Your task to perform on an android device: Empty the shopping cart on ebay. Search for logitech g pro on ebay, select the first entry, and add it to the cart. Image 0: 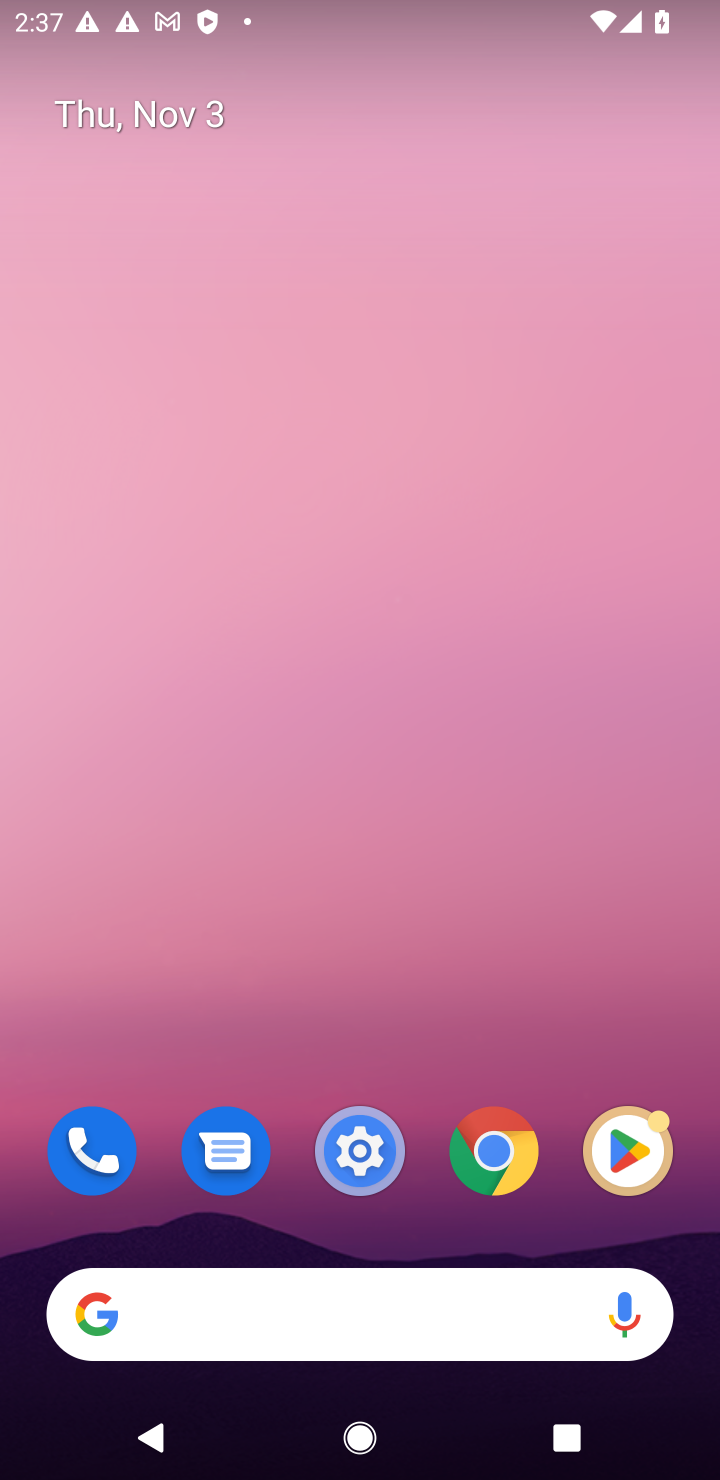
Step 0: click (324, 1316)
Your task to perform on an android device: Empty the shopping cart on ebay. Search for logitech g pro on ebay, select the first entry, and add it to the cart. Image 1: 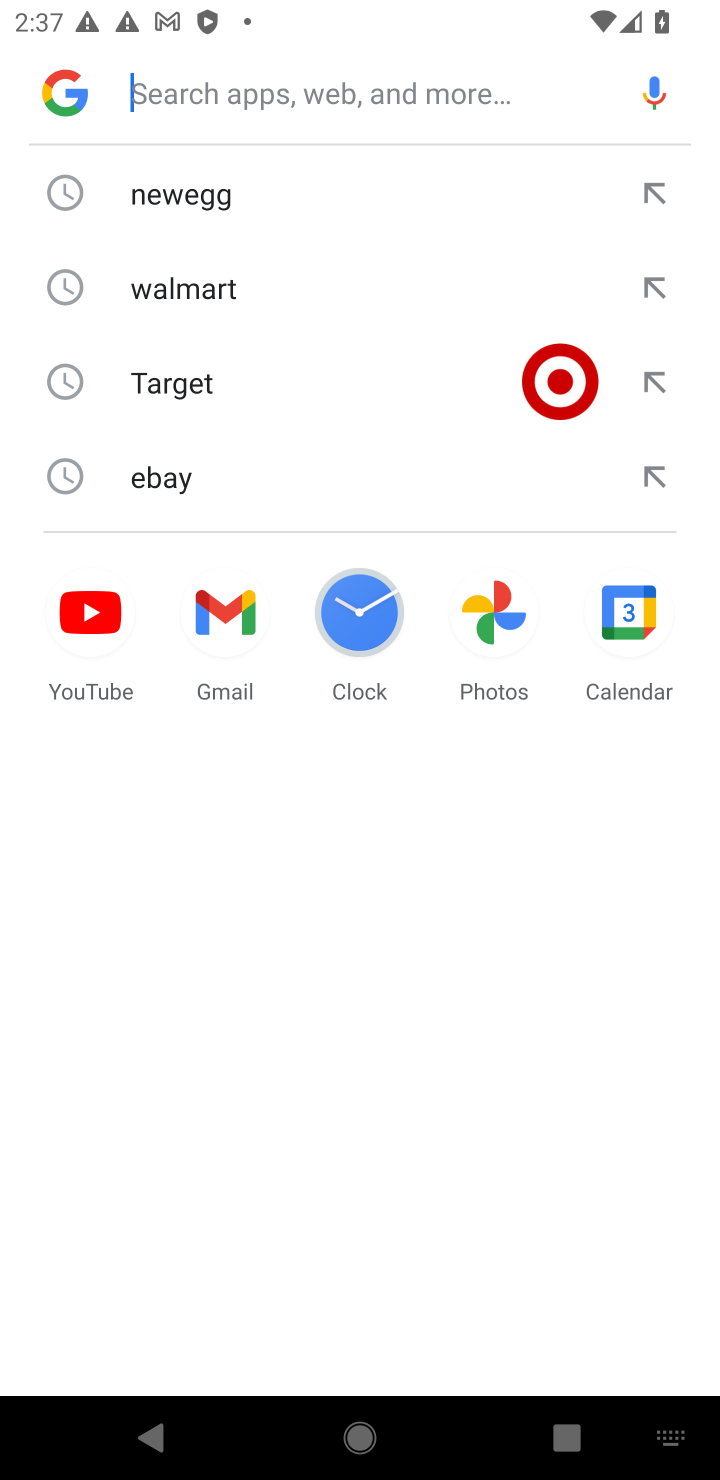
Step 1: type "ebay"
Your task to perform on an android device: Empty the shopping cart on ebay. Search for logitech g pro on ebay, select the first entry, and add it to the cart. Image 2: 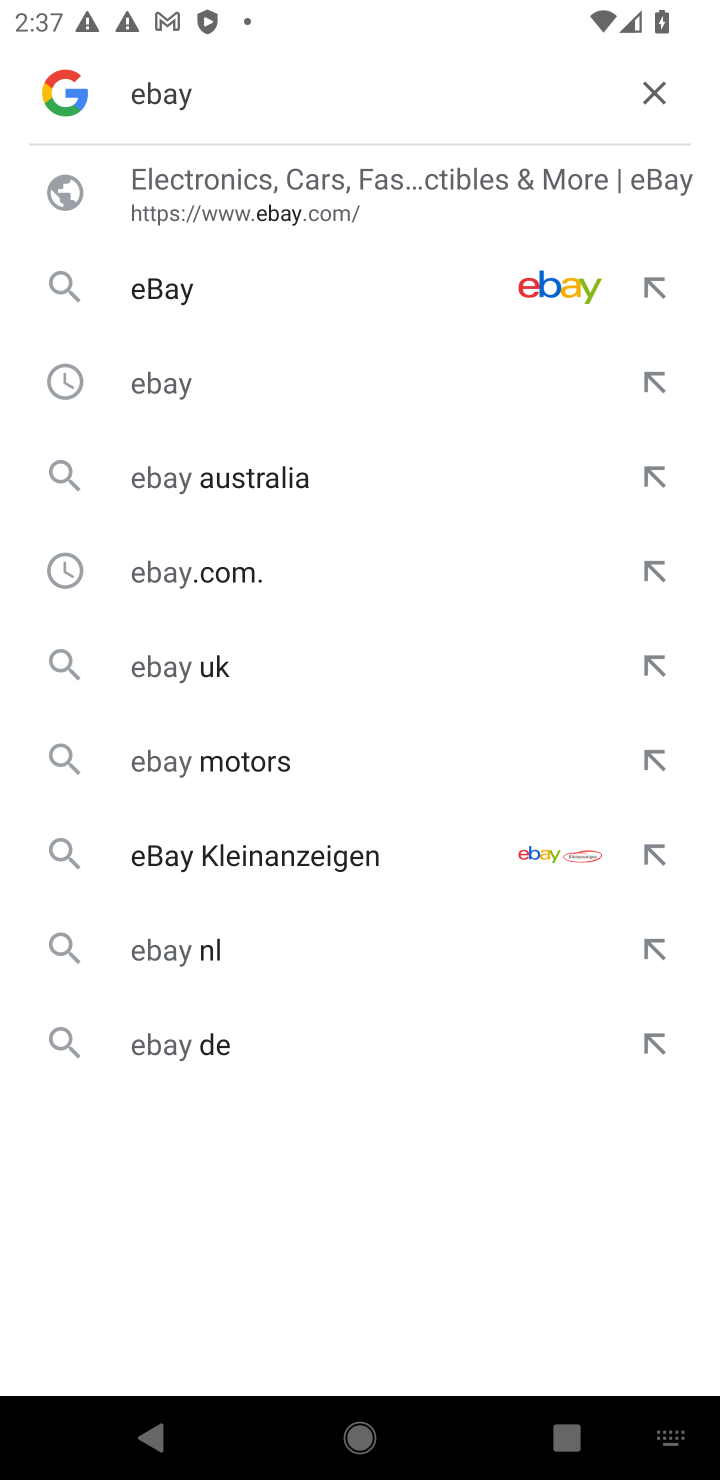
Step 2: click (184, 316)
Your task to perform on an android device: Empty the shopping cart on ebay. Search for logitech g pro on ebay, select the first entry, and add it to the cart. Image 3: 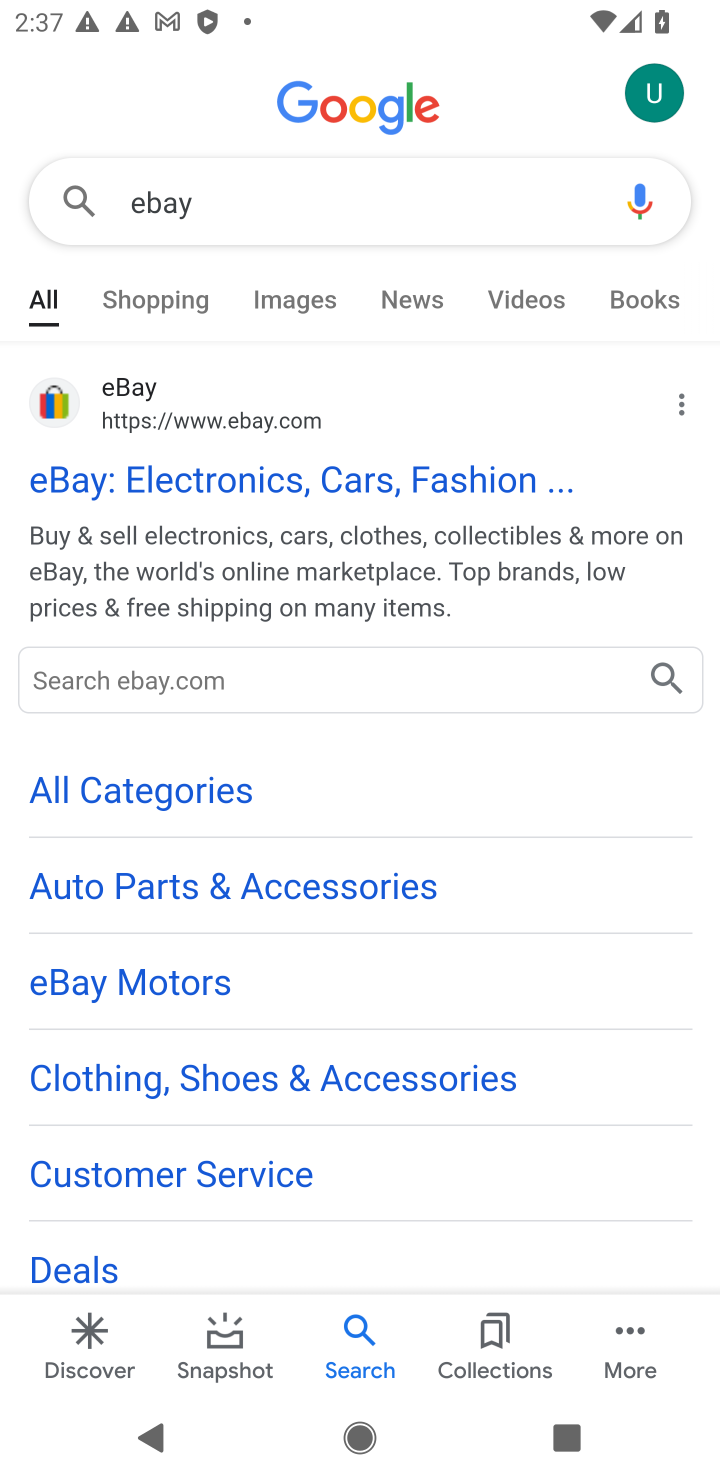
Step 3: click (112, 403)
Your task to perform on an android device: Empty the shopping cart on ebay. Search for logitech g pro on ebay, select the first entry, and add it to the cart. Image 4: 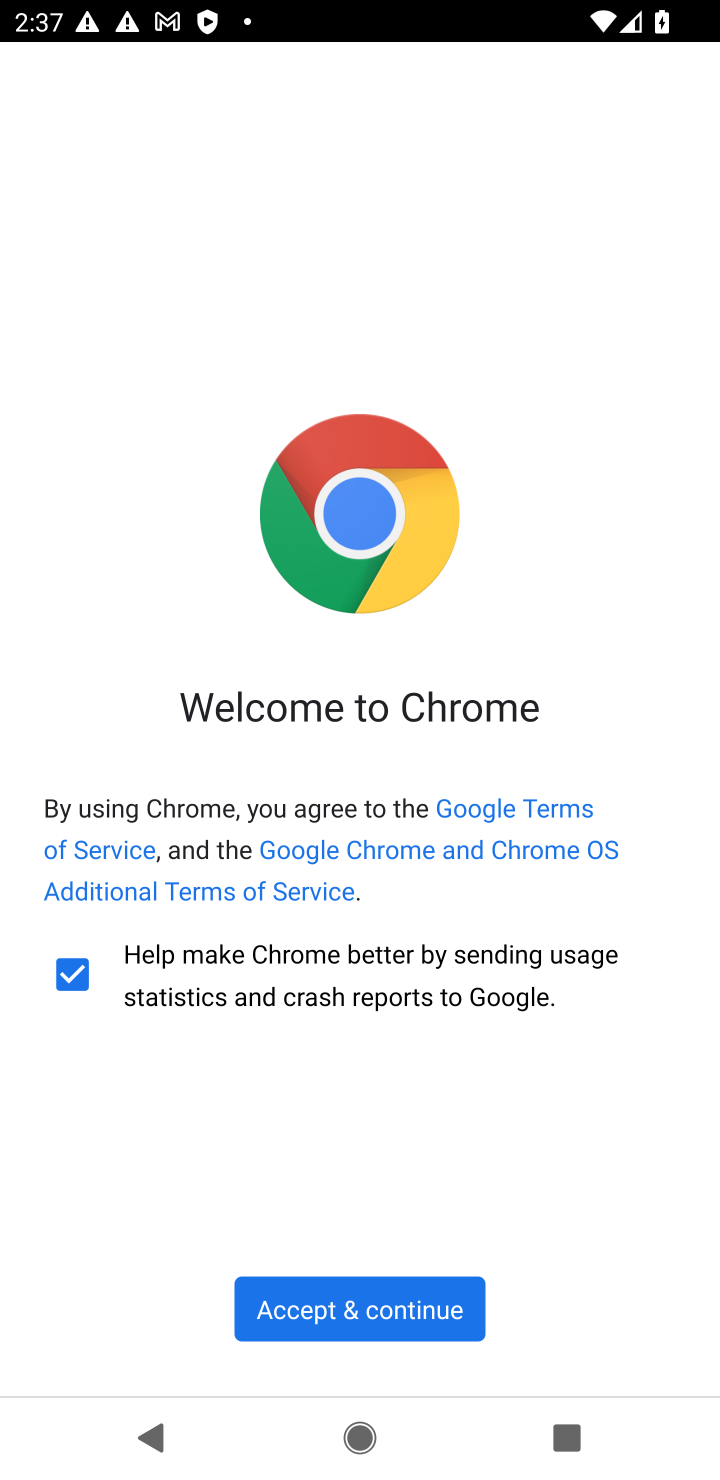
Step 4: click (365, 1295)
Your task to perform on an android device: Empty the shopping cart on ebay. Search for logitech g pro on ebay, select the first entry, and add it to the cart. Image 5: 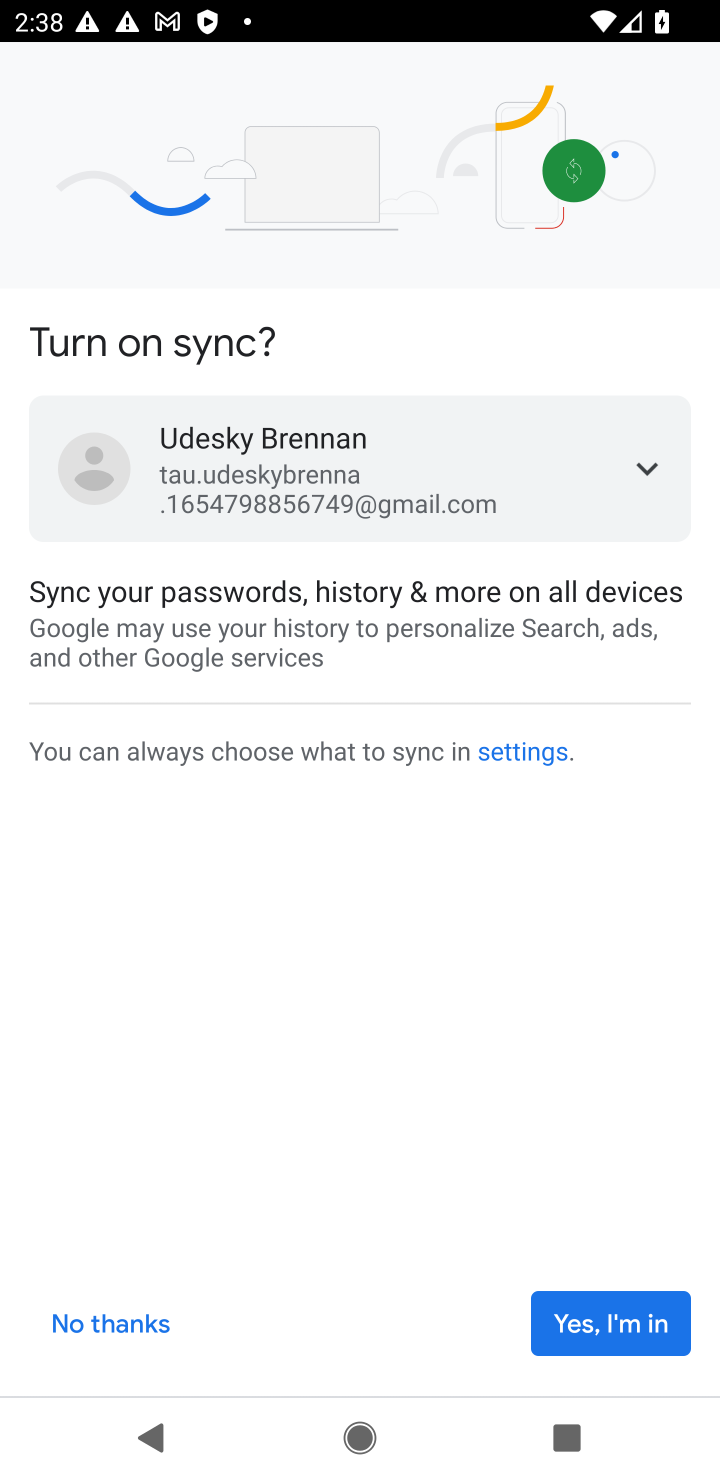
Step 5: click (595, 1330)
Your task to perform on an android device: Empty the shopping cart on ebay. Search for logitech g pro on ebay, select the first entry, and add it to the cart. Image 6: 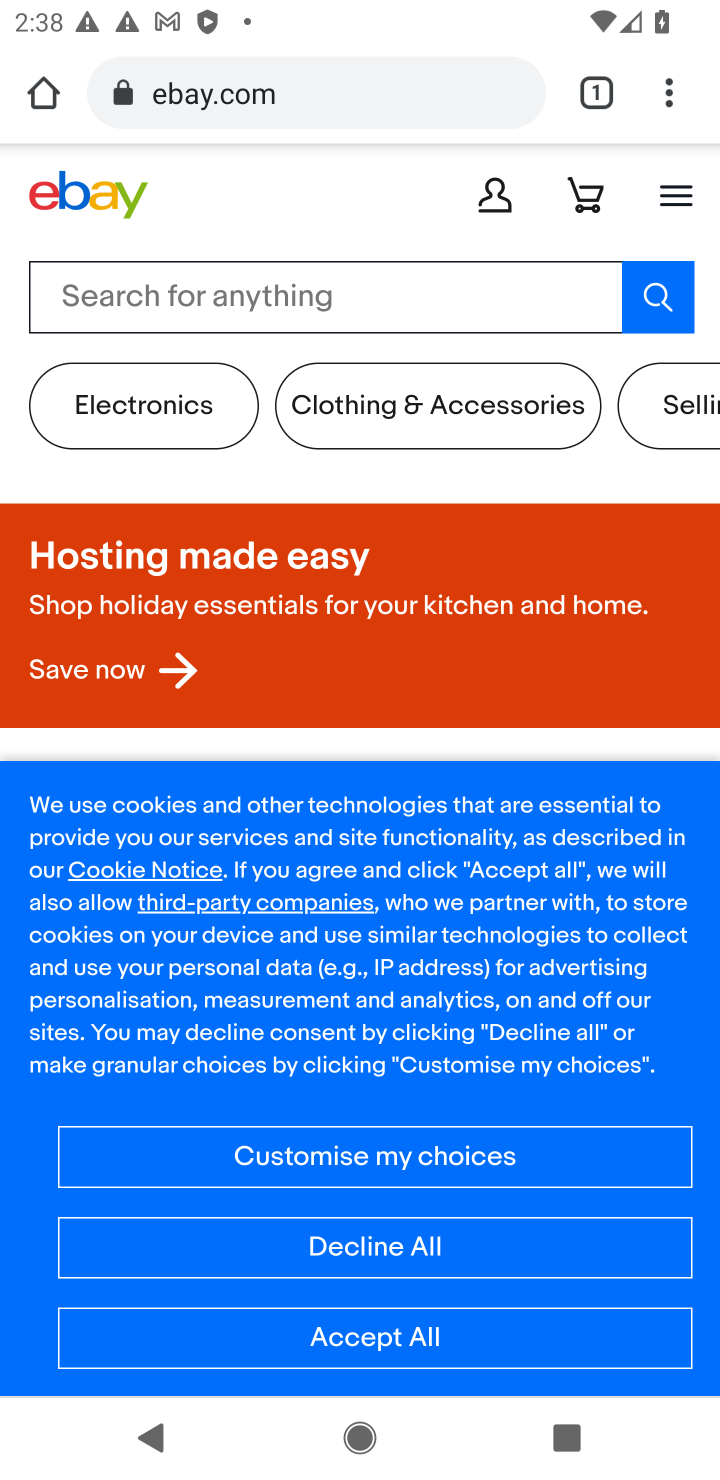
Step 6: click (361, 1345)
Your task to perform on an android device: Empty the shopping cart on ebay. Search for logitech g pro on ebay, select the first entry, and add it to the cart. Image 7: 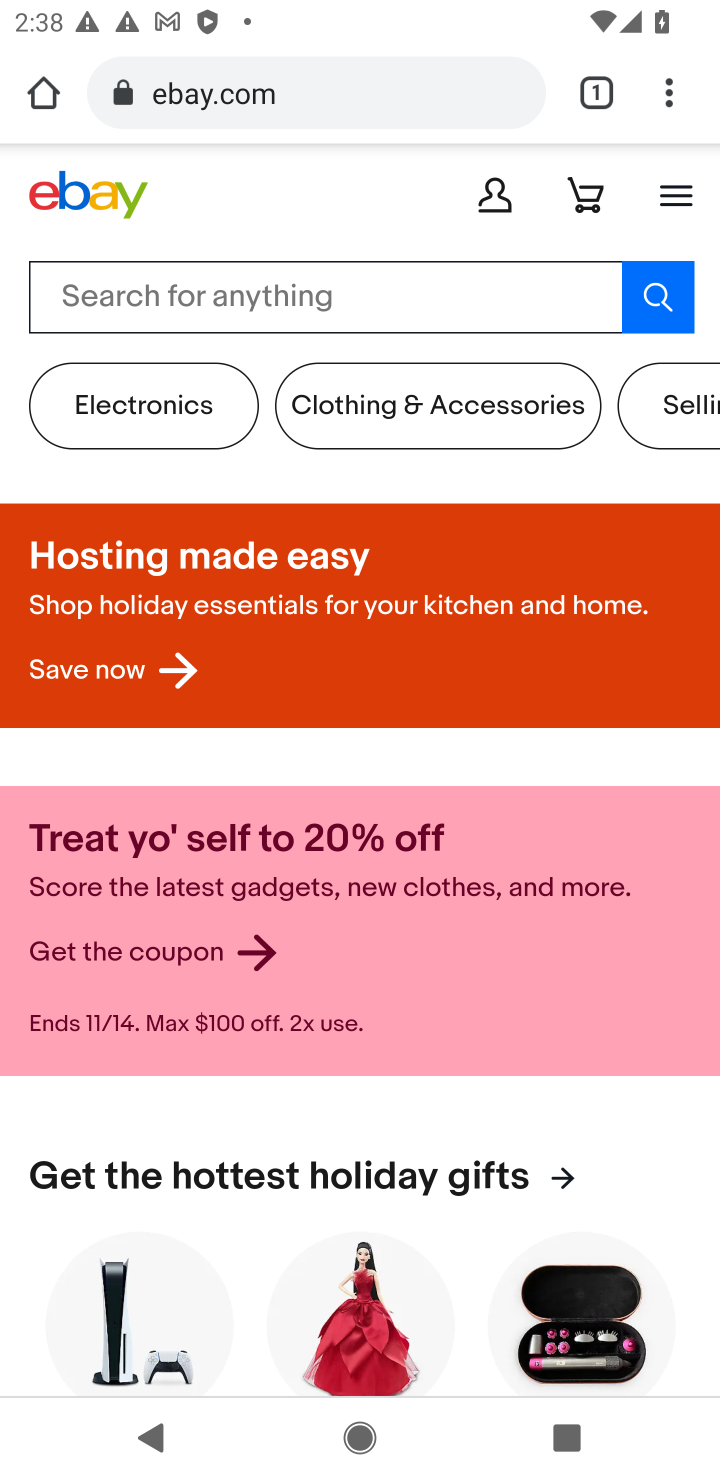
Step 7: click (578, 204)
Your task to perform on an android device: Empty the shopping cart on ebay. Search for logitech g pro on ebay, select the first entry, and add it to the cart. Image 8: 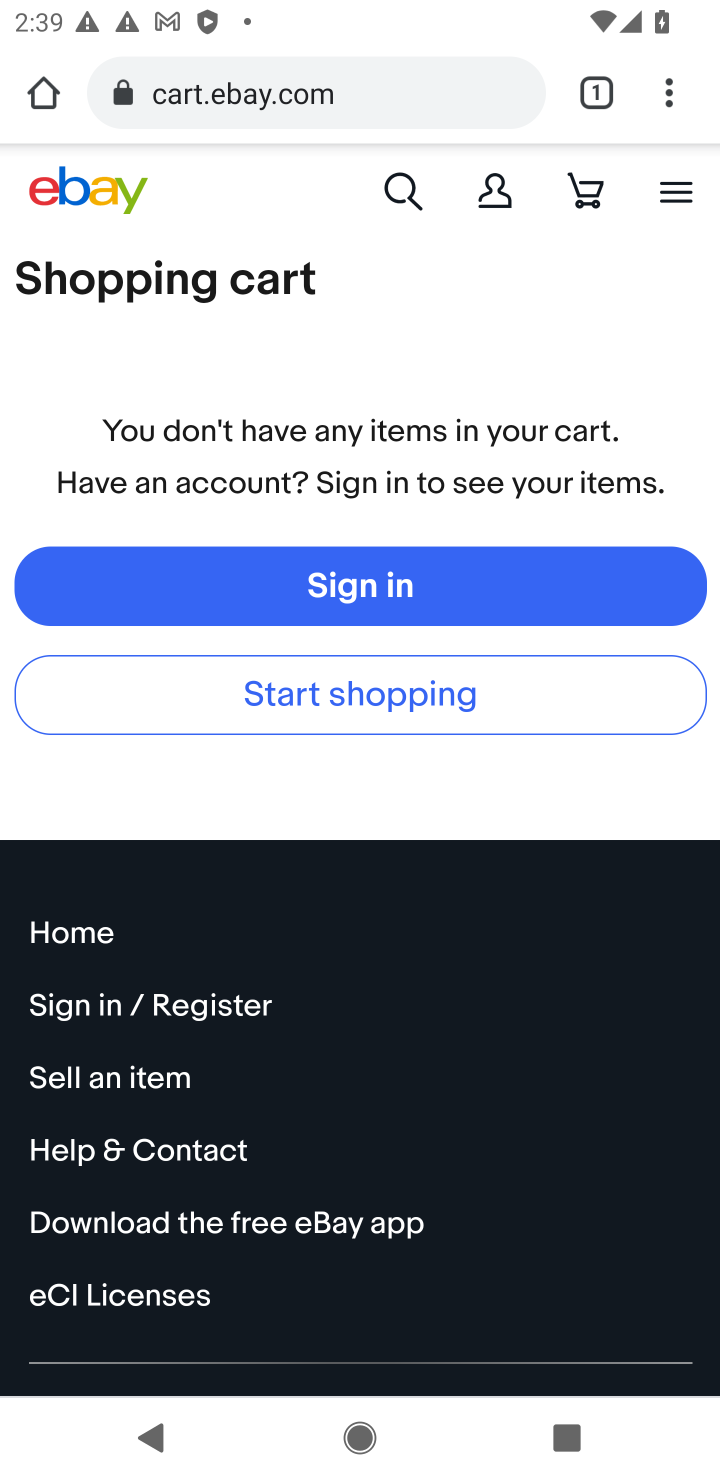
Step 8: click (394, 184)
Your task to perform on an android device: Empty the shopping cart on ebay. Search for logitech g pro on ebay, select the first entry, and add it to the cart. Image 9: 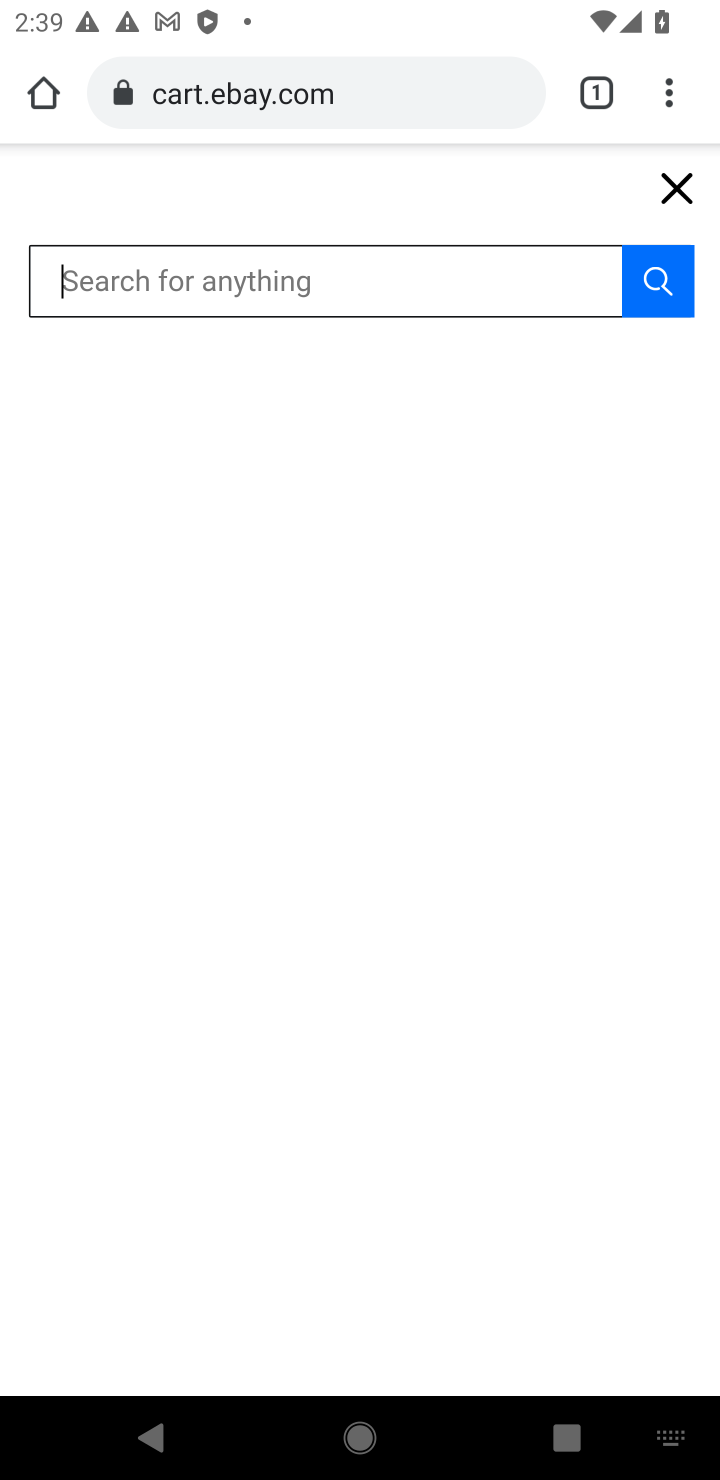
Step 9: type " logitech g pro "
Your task to perform on an android device: Empty the shopping cart on ebay. Search for logitech g pro on ebay, select the first entry, and add it to the cart. Image 10: 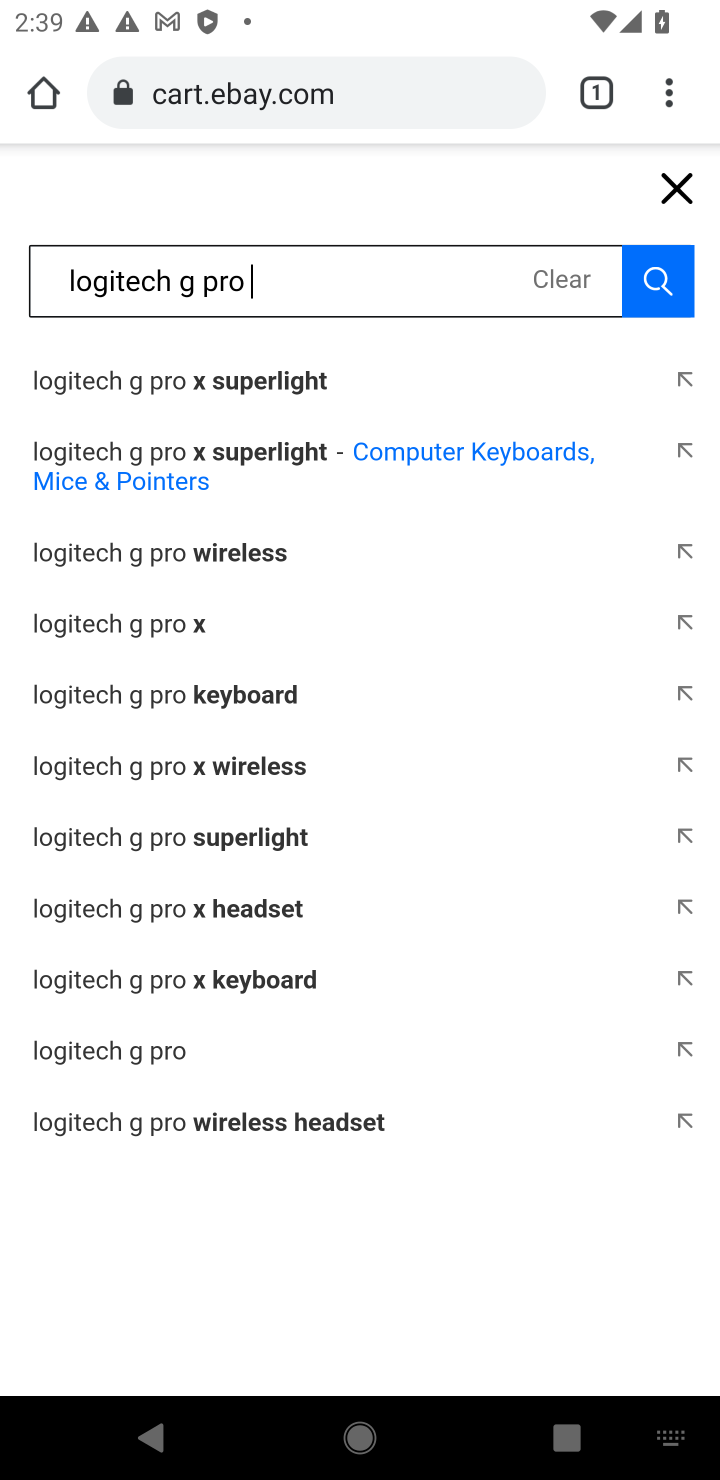
Step 10: click (255, 379)
Your task to perform on an android device: Empty the shopping cart on ebay. Search for logitech g pro on ebay, select the first entry, and add it to the cart. Image 11: 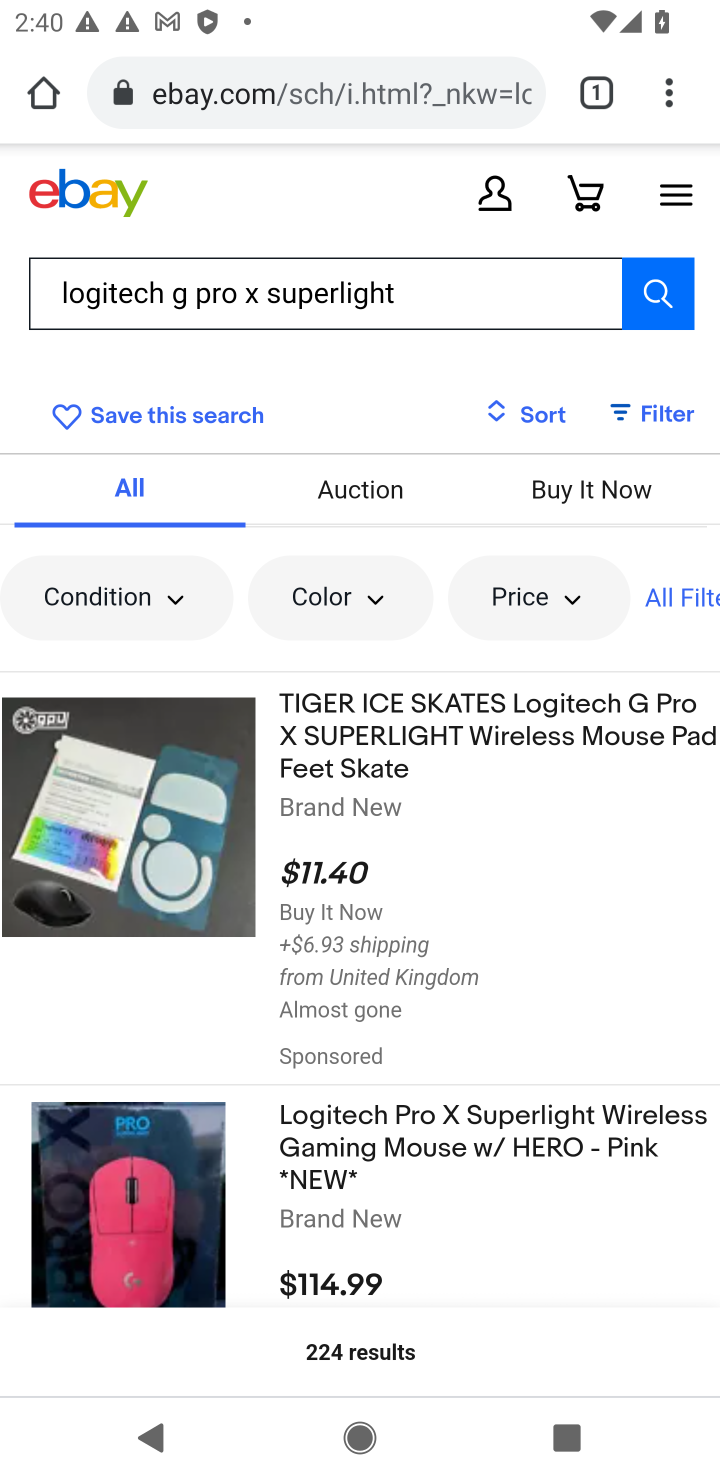
Step 11: click (178, 786)
Your task to perform on an android device: Empty the shopping cart on ebay. Search for logitech g pro on ebay, select the first entry, and add it to the cart. Image 12: 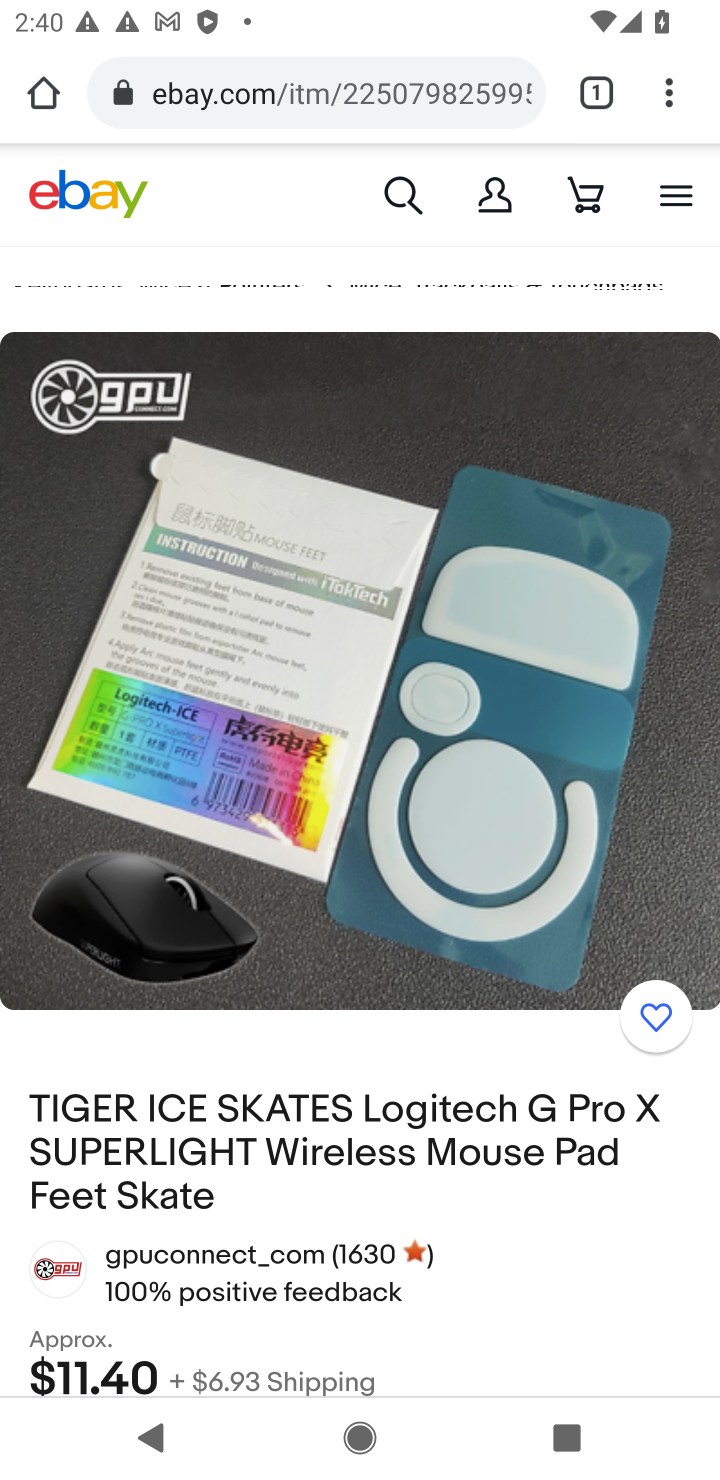
Step 12: drag from (298, 1191) to (398, 530)
Your task to perform on an android device: Empty the shopping cart on ebay. Search for logitech g pro on ebay, select the first entry, and add it to the cart. Image 13: 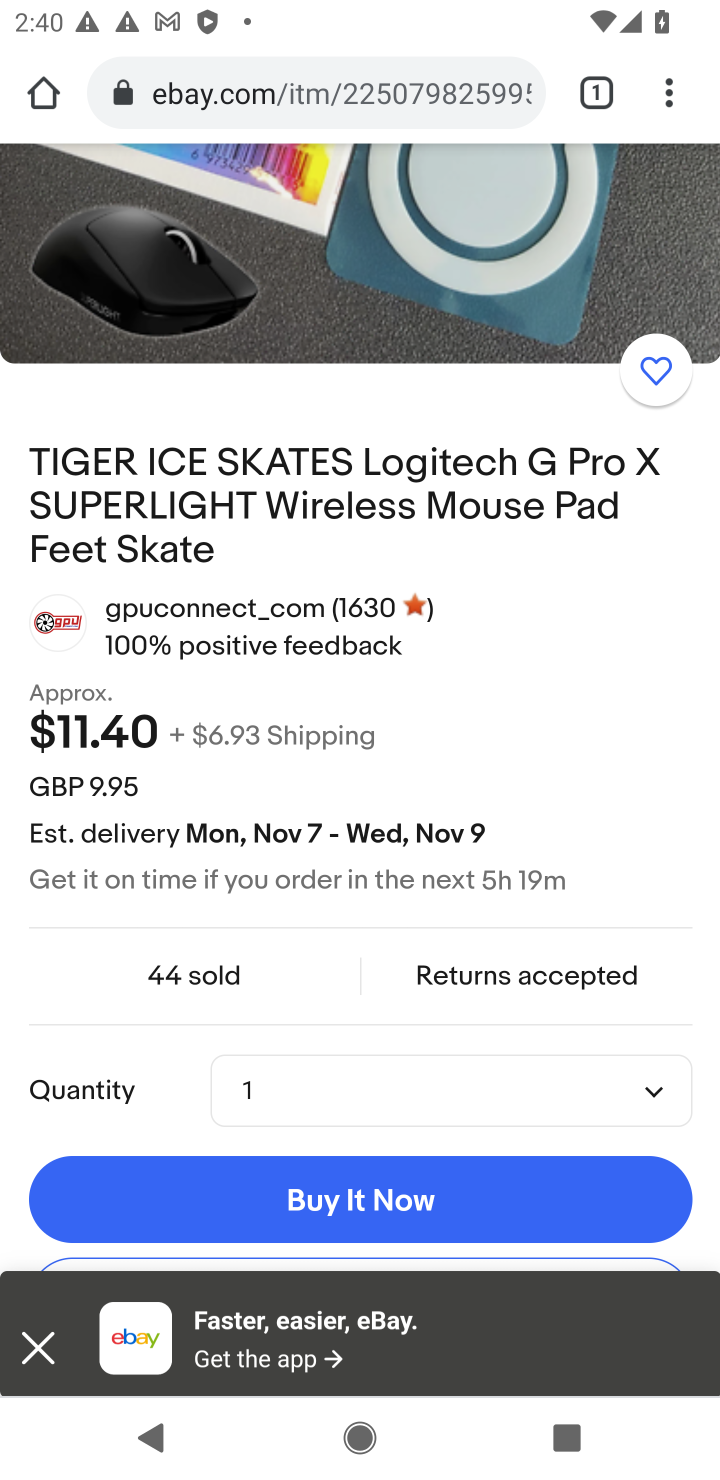
Step 13: click (373, 1188)
Your task to perform on an android device: Empty the shopping cart on ebay. Search for logitech g pro on ebay, select the first entry, and add it to the cart. Image 14: 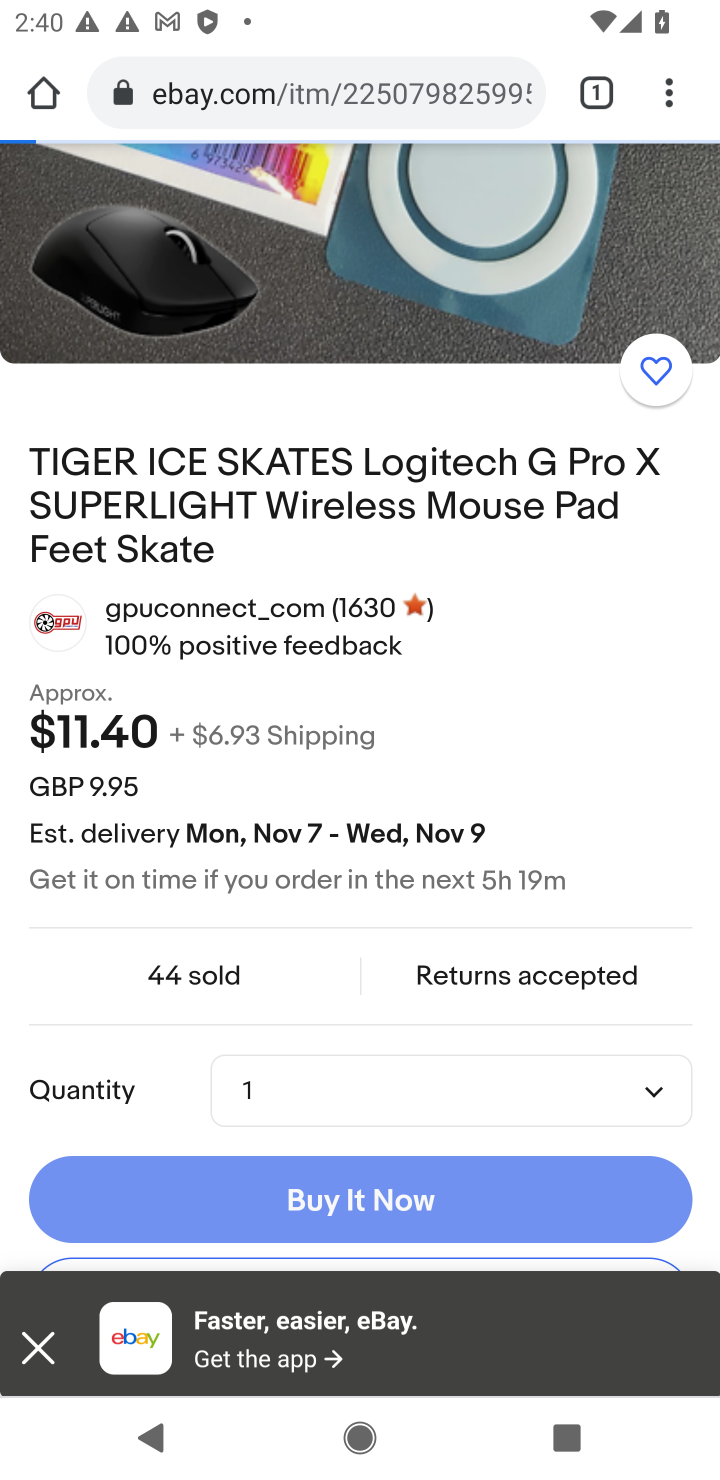
Step 14: task complete